Your task to perform on an android device: Go to display settings Image 0: 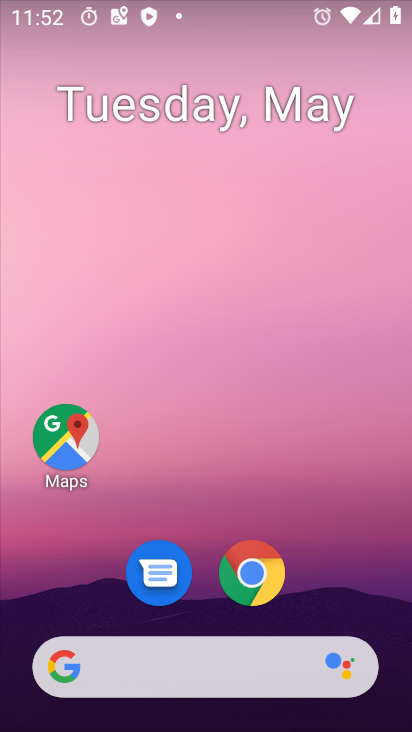
Step 0: drag from (247, 703) to (383, 139)
Your task to perform on an android device: Go to display settings Image 1: 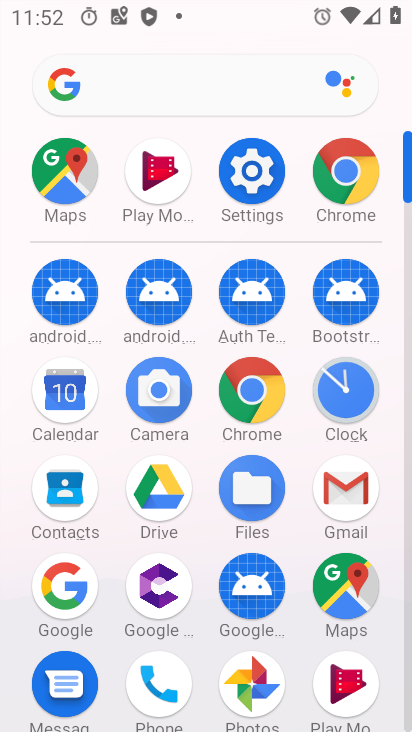
Step 1: click (256, 197)
Your task to perform on an android device: Go to display settings Image 2: 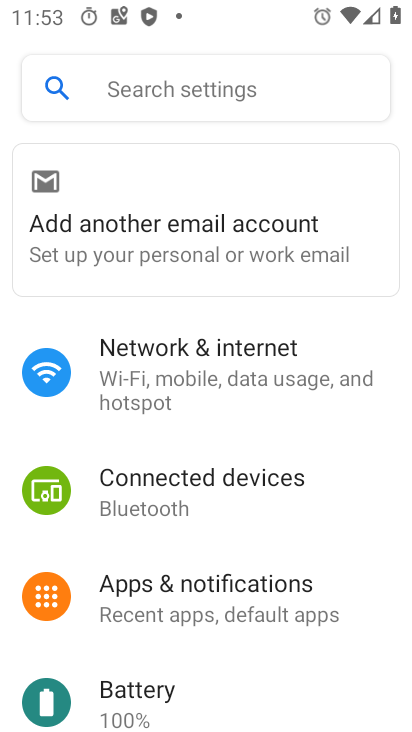
Step 2: drag from (160, 640) to (309, 276)
Your task to perform on an android device: Go to display settings Image 3: 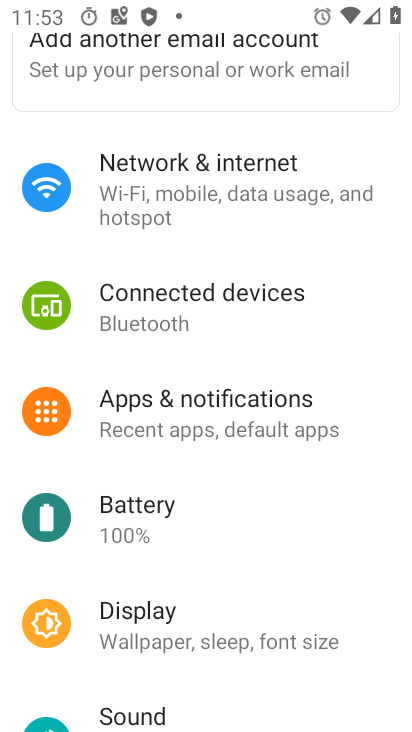
Step 3: click (118, 636)
Your task to perform on an android device: Go to display settings Image 4: 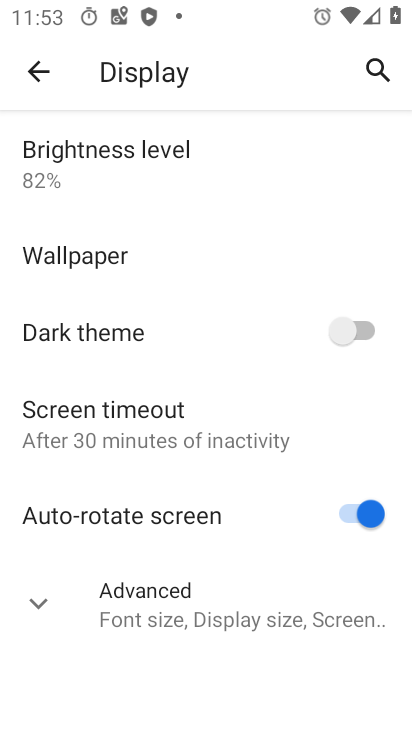
Step 4: task complete